Your task to perform on an android device: Open Chrome and go to the settings page Image 0: 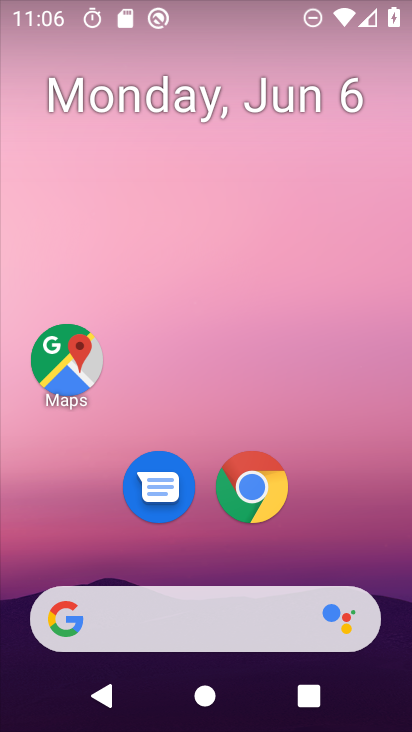
Step 0: drag from (393, 630) to (345, 339)
Your task to perform on an android device: Open Chrome and go to the settings page Image 1: 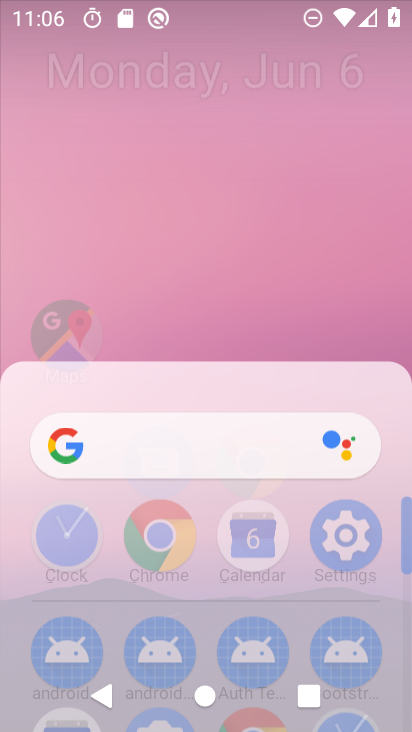
Step 1: click (263, 79)
Your task to perform on an android device: Open Chrome and go to the settings page Image 2: 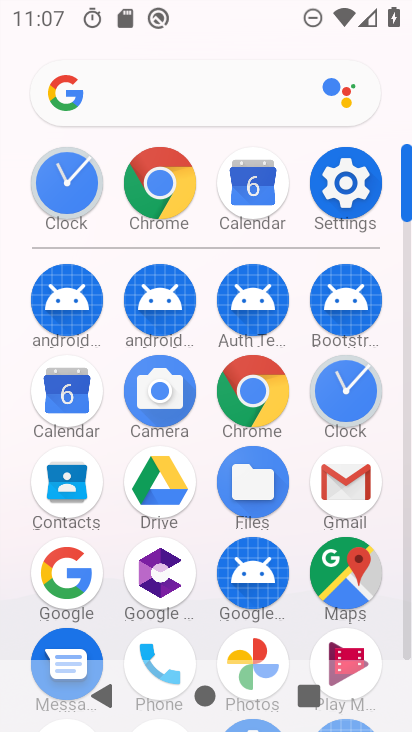
Step 2: click (140, 190)
Your task to perform on an android device: Open Chrome and go to the settings page Image 3: 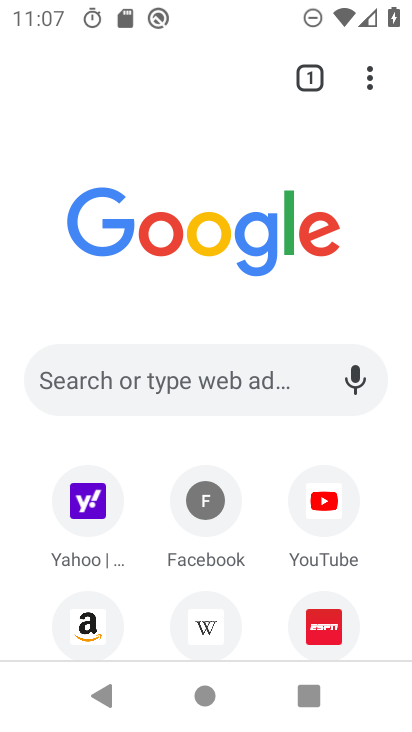
Step 3: click (369, 66)
Your task to perform on an android device: Open Chrome and go to the settings page Image 4: 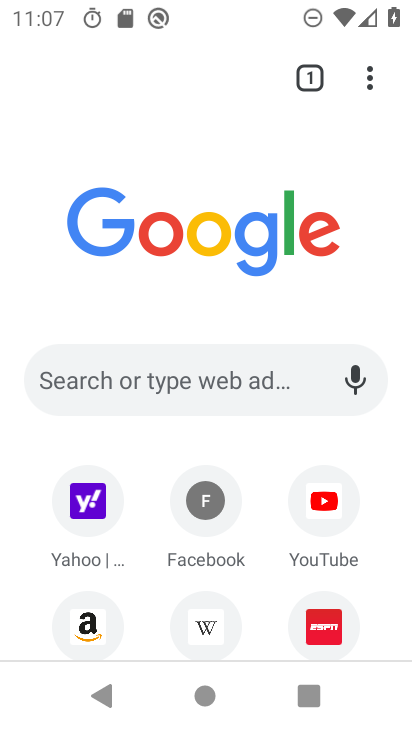
Step 4: click (369, 66)
Your task to perform on an android device: Open Chrome and go to the settings page Image 5: 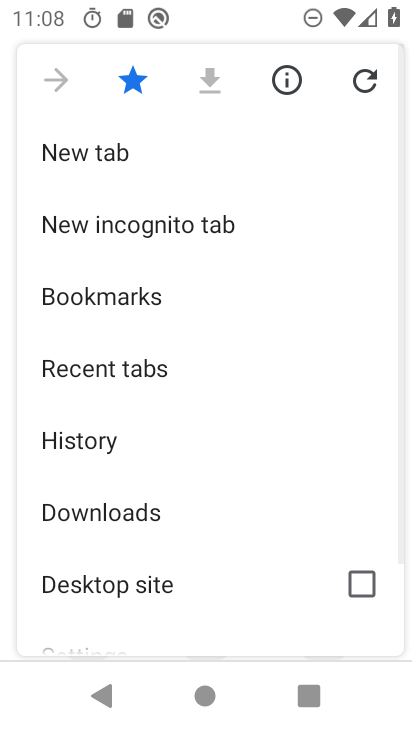
Step 5: drag from (76, 567) to (72, 167)
Your task to perform on an android device: Open Chrome and go to the settings page Image 6: 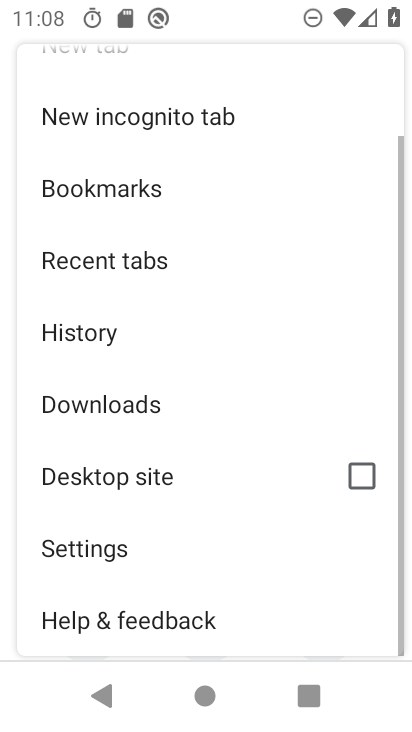
Step 6: click (104, 560)
Your task to perform on an android device: Open Chrome and go to the settings page Image 7: 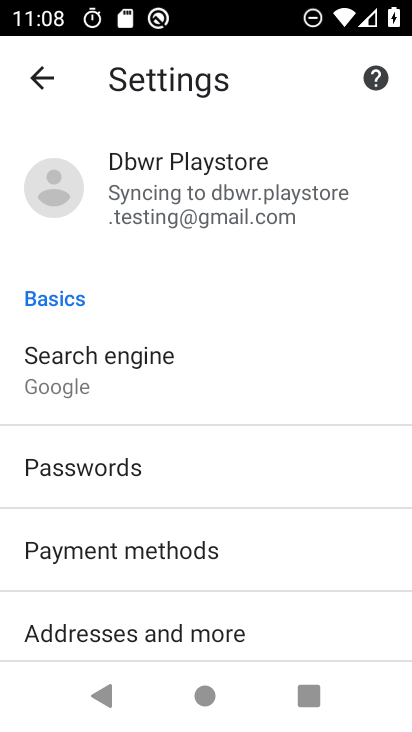
Step 7: task complete